Your task to perform on an android device: Open CNN.com Image 0: 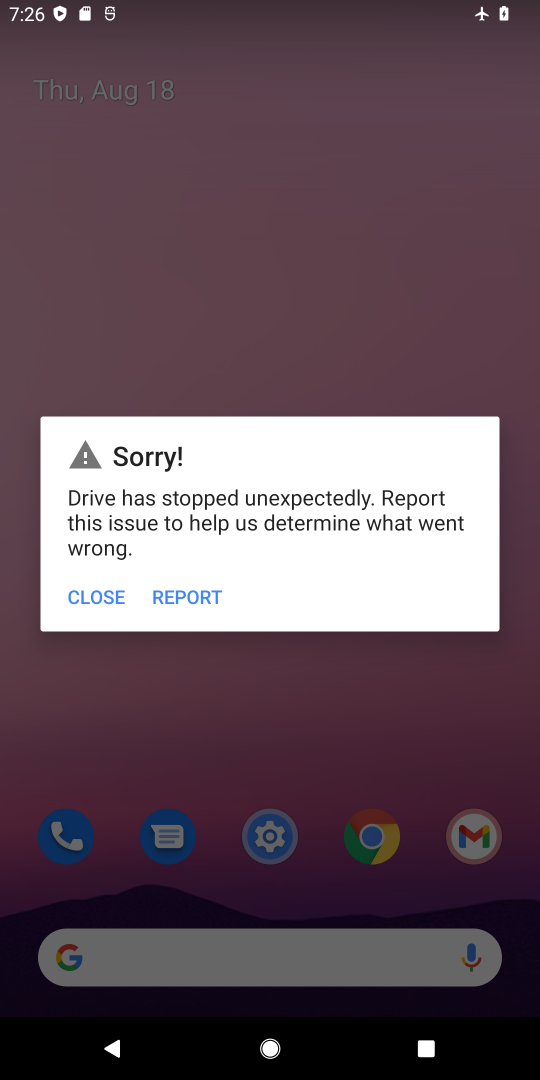
Step 0: press home button
Your task to perform on an android device: Open CNN.com Image 1: 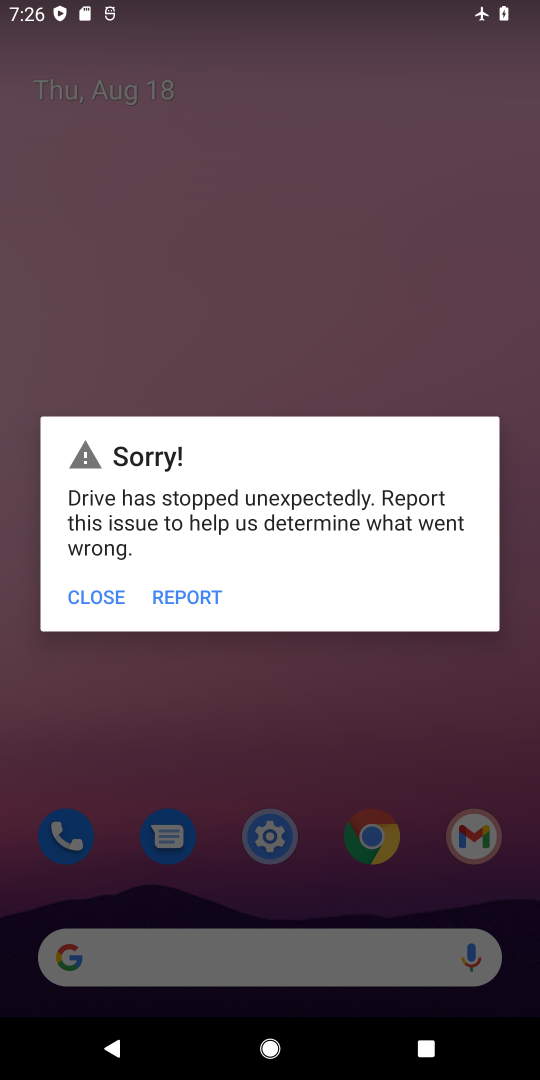
Step 1: press home button
Your task to perform on an android device: Open CNN.com Image 2: 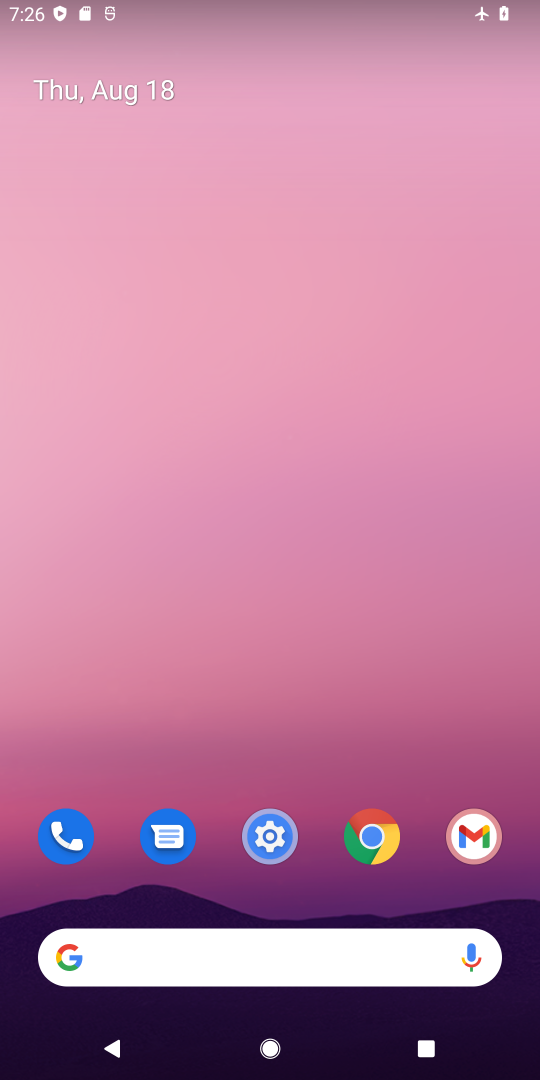
Step 2: drag from (252, 757) to (374, 22)
Your task to perform on an android device: Open CNN.com Image 3: 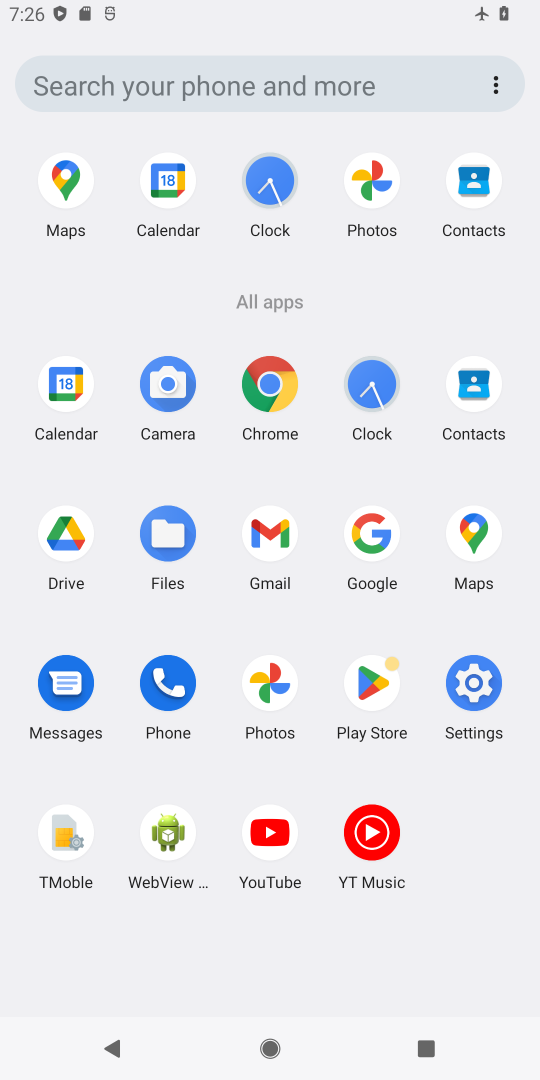
Step 3: click (261, 382)
Your task to perform on an android device: Open CNN.com Image 4: 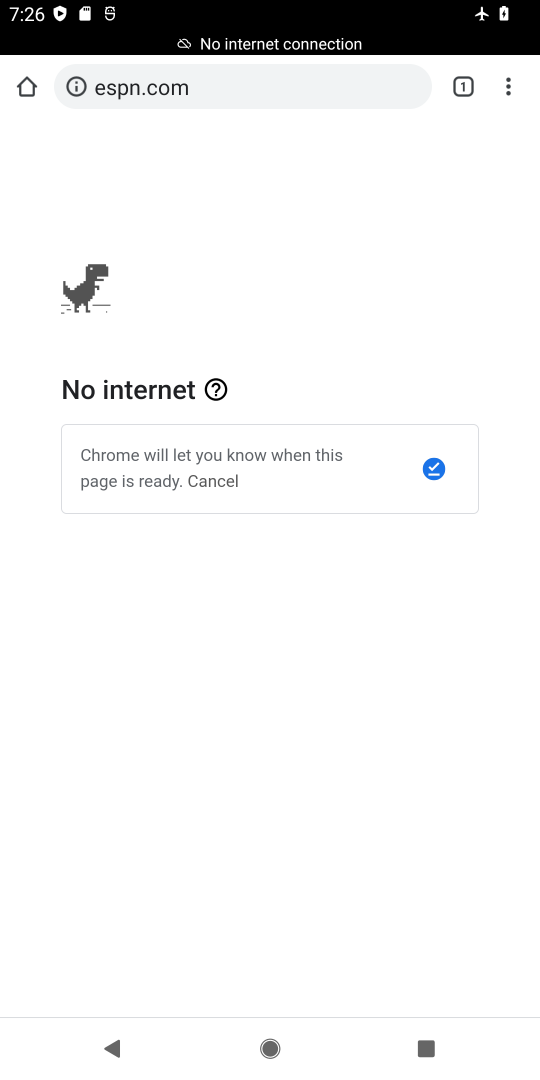
Step 4: click (216, 82)
Your task to perform on an android device: Open CNN.com Image 5: 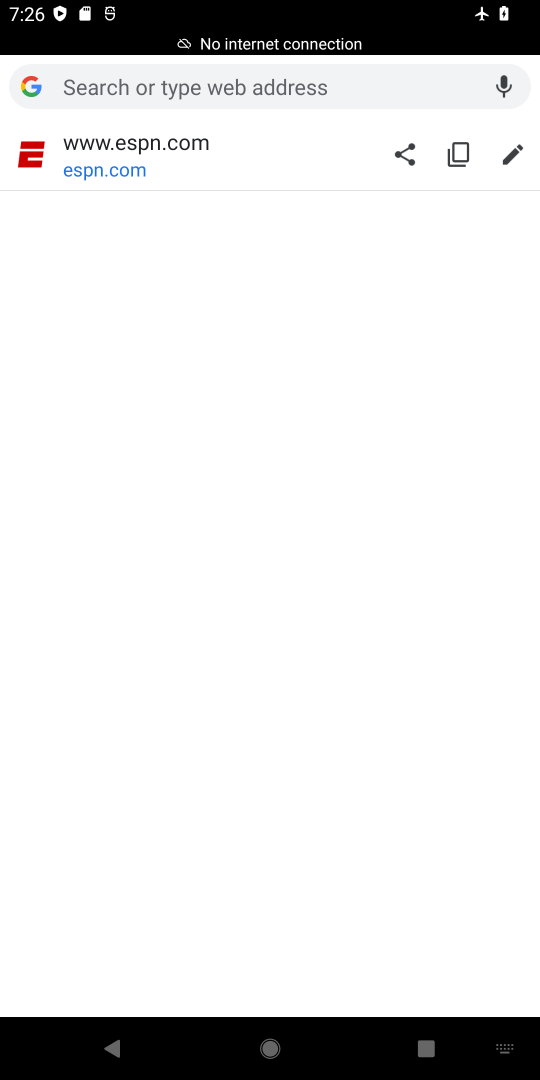
Step 5: type "cnn.com"
Your task to perform on an android device: Open CNN.com Image 6: 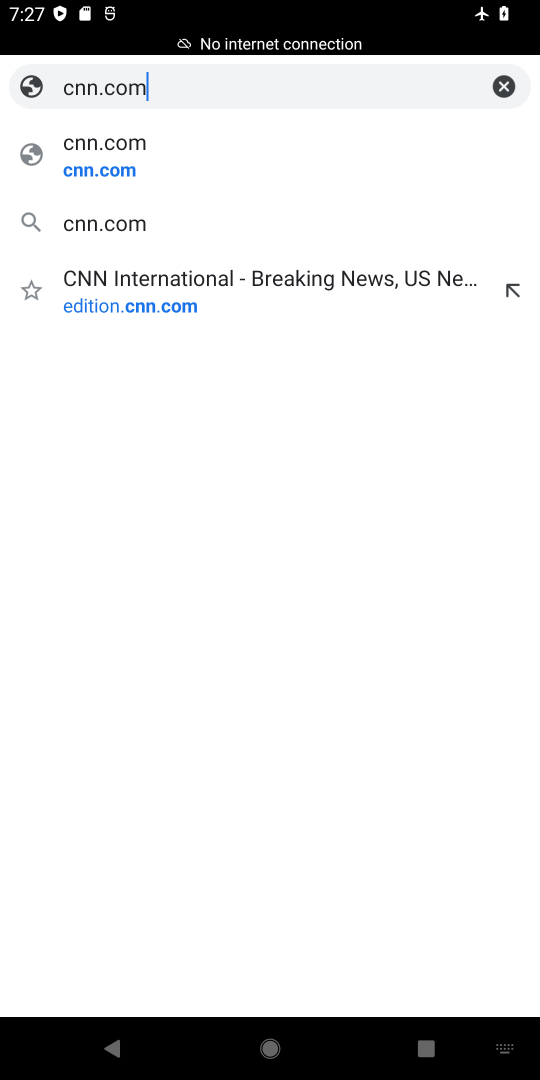
Step 6: click (107, 156)
Your task to perform on an android device: Open CNN.com Image 7: 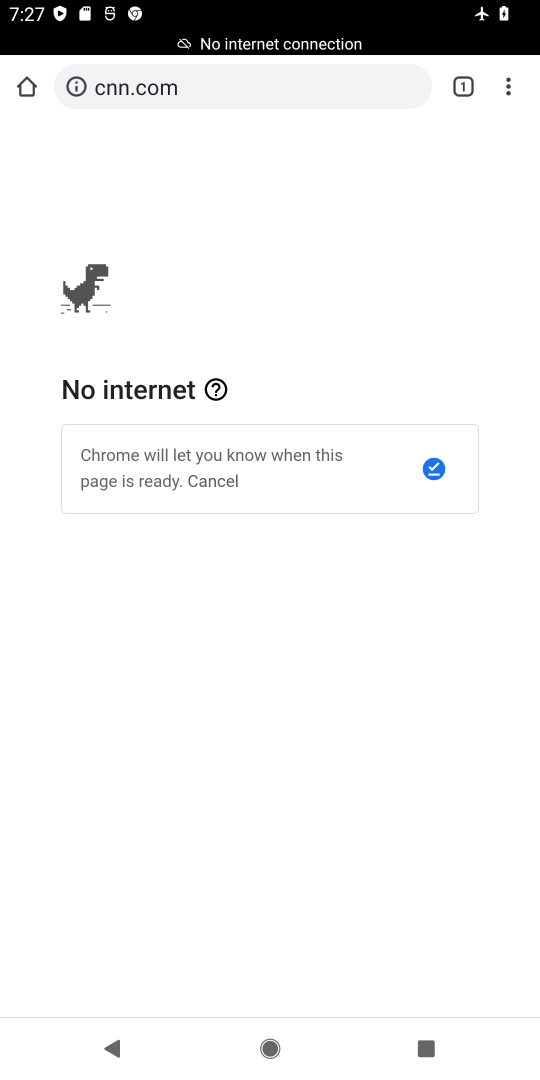
Step 7: task complete